Your task to perform on an android device: turn pop-ups on in chrome Image 0: 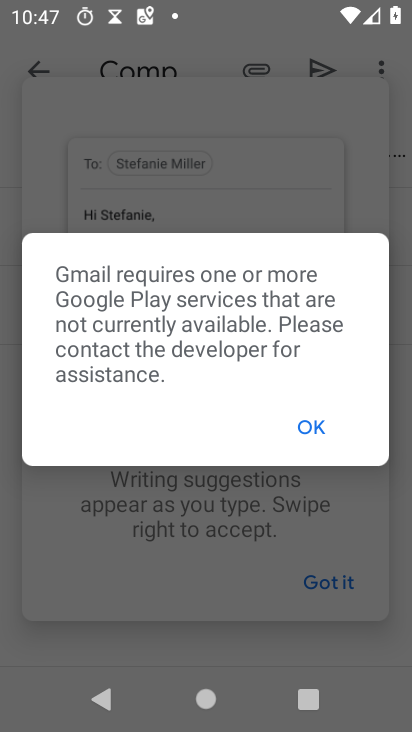
Step 0: press home button
Your task to perform on an android device: turn pop-ups on in chrome Image 1: 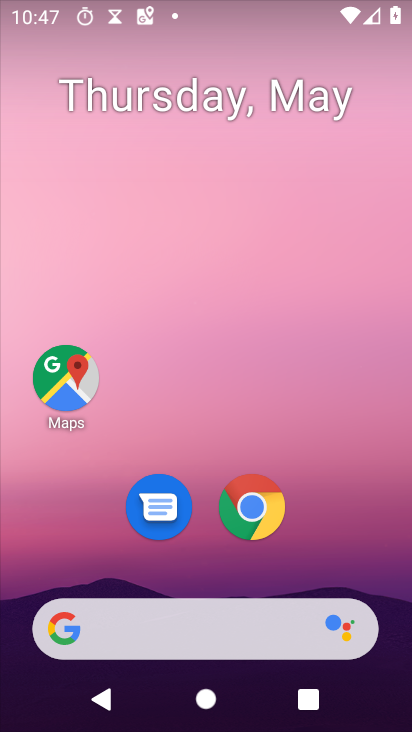
Step 1: click (263, 509)
Your task to perform on an android device: turn pop-ups on in chrome Image 2: 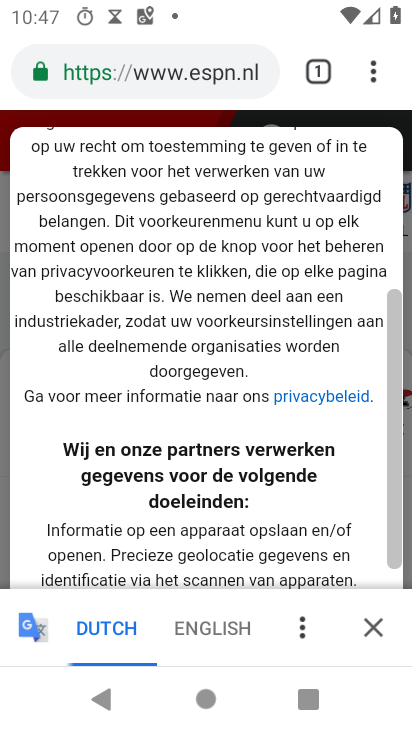
Step 2: click (378, 69)
Your task to perform on an android device: turn pop-ups on in chrome Image 3: 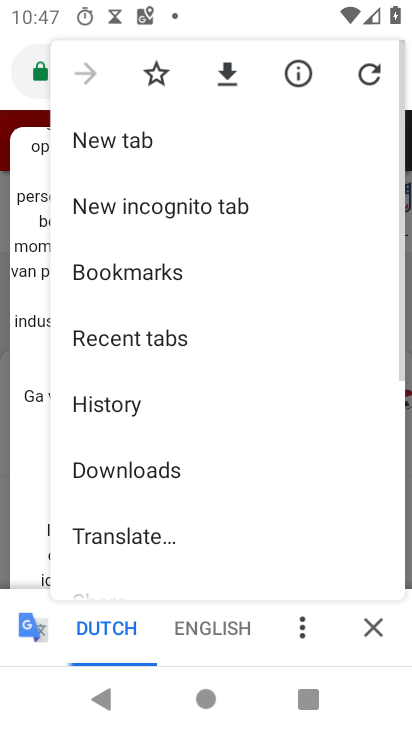
Step 3: drag from (245, 534) to (331, 170)
Your task to perform on an android device: turn pop-ups on in chrome Image 4: 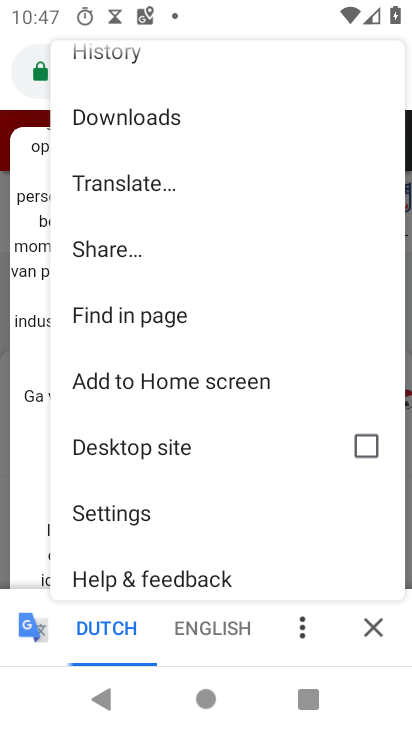
Step 4: click (118, 504)
Your task to perform on an android device: turn pop-ups on in chrome Image 5: 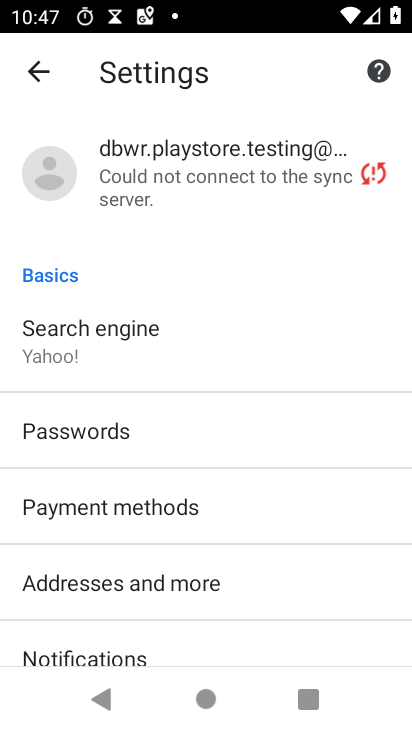
Step 5: drag from (240, 627) to (260, 283)
Your task to perform on an android device: turn pop-ups on in chrome Image 6: 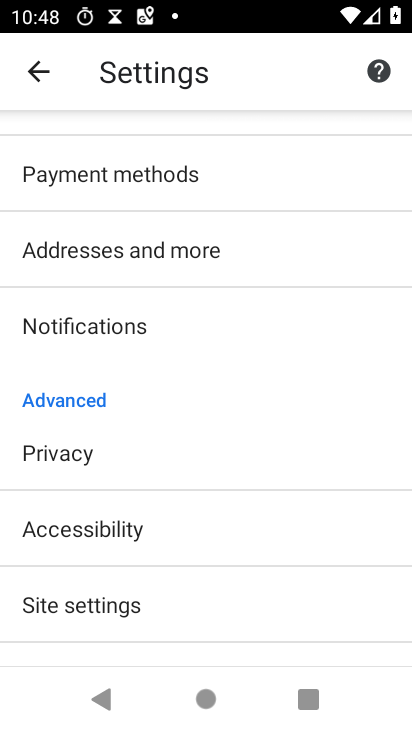
Step 6: click (108, 610)
Your task to perform on an android device: turn pop-ups on in chrome Image 7: 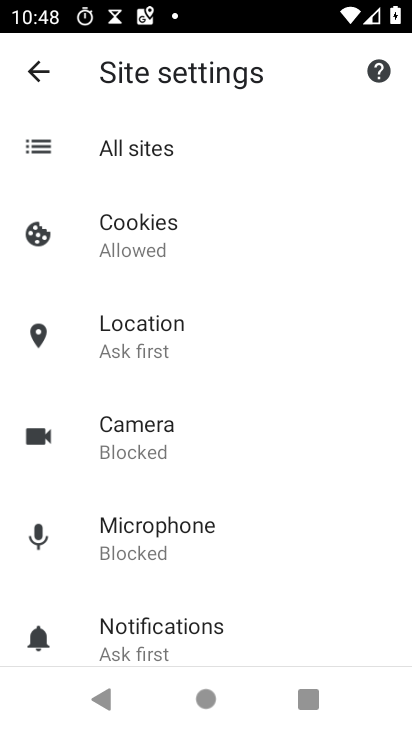
Step 7: drag from (277, 593) to (259, 166)
Your task to perform on an android device: turn pop-ups on in chrome Image 8: 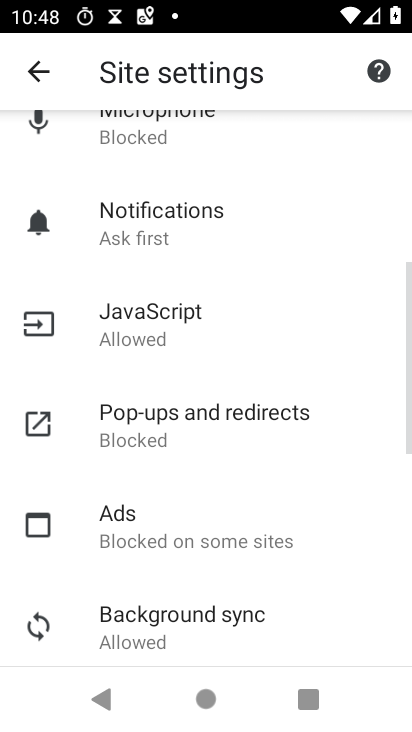
Step 8: click (198, 432)
Your task to perform on an android device: turn pop-ups on in chrome Image 9: 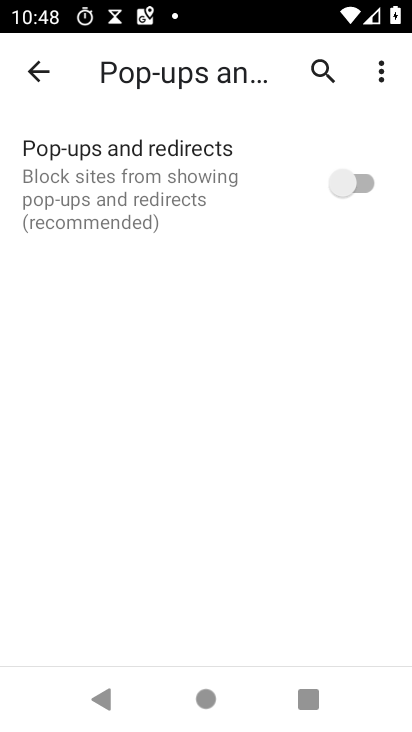
Step 9: click (353, 183)
Your task to perform on an android device: turn pop-ups on in chrome Image 10: 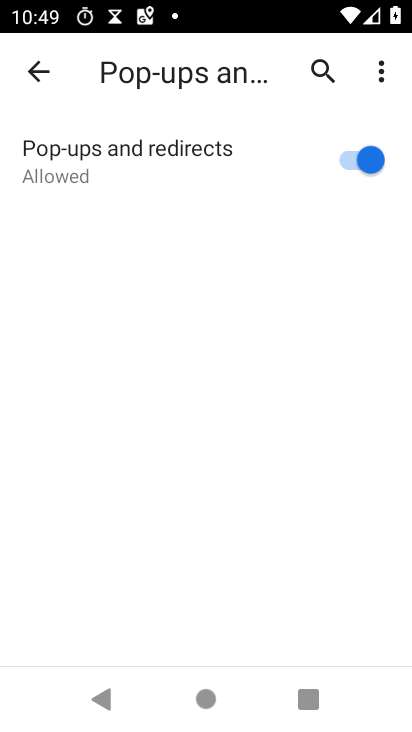
Step 10: task complete